Your task to perform on an android device: turn on location history Image 0: 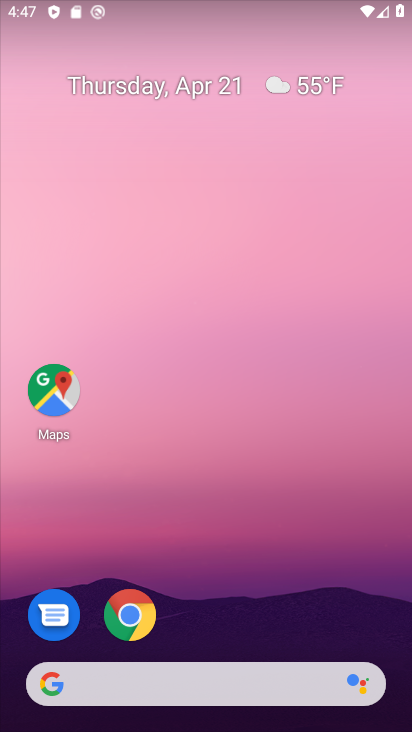
Step 0: drag from (275, 545) to (194, 27)
Your task to perform on an android device: turn on location history Image 1: 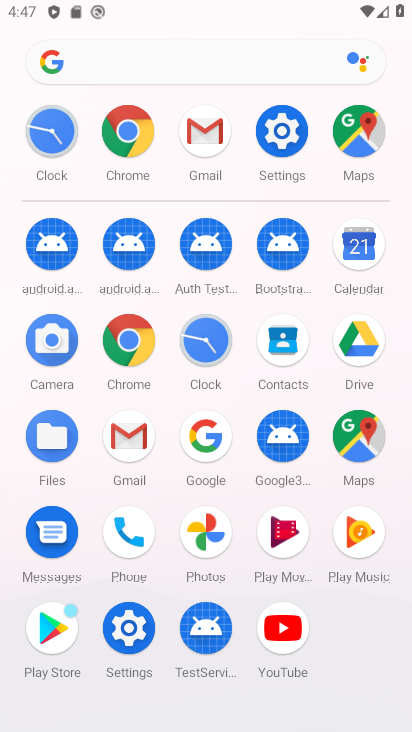
Step 1: drag from (6, 533) to (0, 258)
Your task to perform on an android device: turn on location history Image 2: 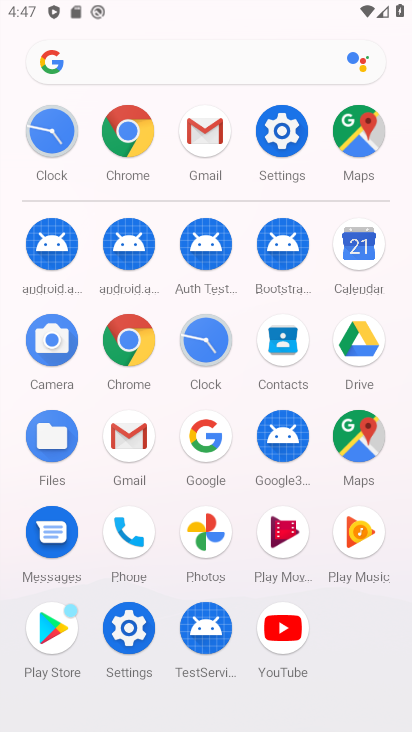
Step 2: click (124, 620)
Your task to perform on an android device: turn on location history Image 3: 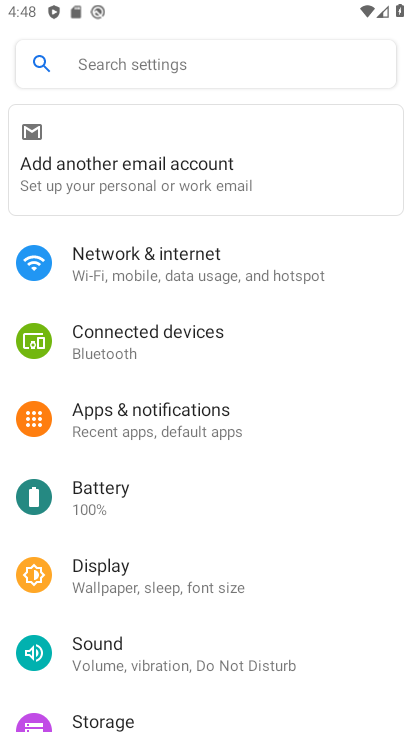
Step 3: drag from (280, 582) to (304, 190)
Your task to perform on an android device: turn on location history Image 4: 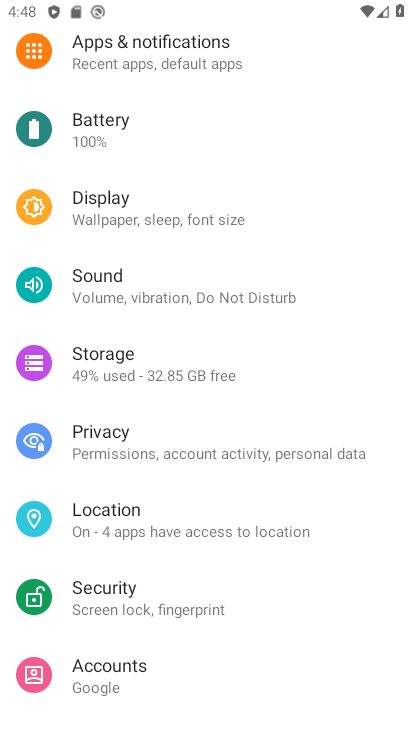
Step 4: drag from (238, 538) to (258, 249)
Your task to perform on an android device: turn on location history Image 5: 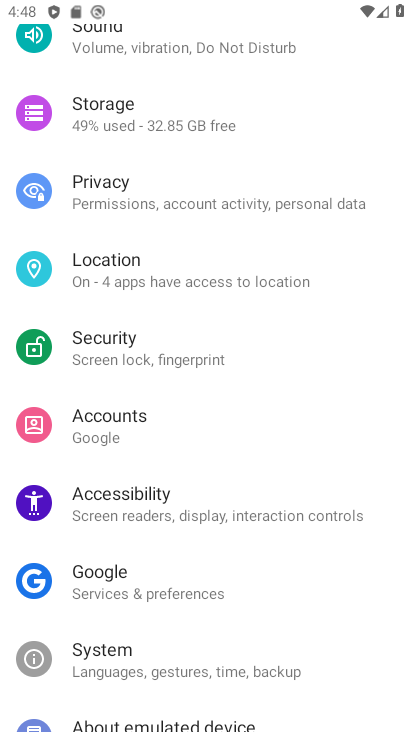
Step 5: click (129, 288)
Your task to perform on an android device: turn on location history Image 6: 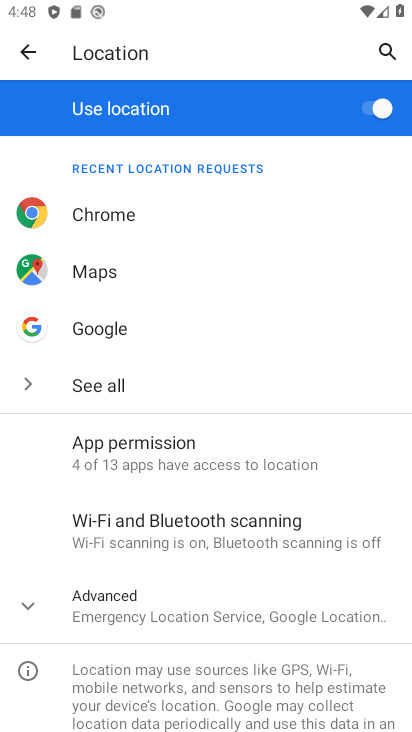
Step 6: click (34, 597)
Your task to perform on an android device: turn on location history Image 7: 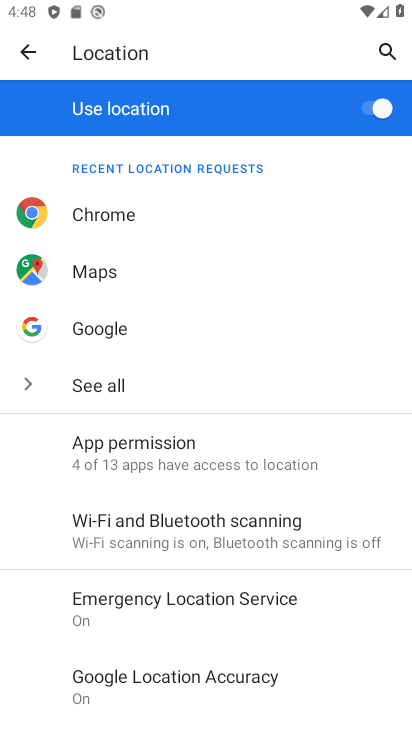
Step 7: drag from (239, 548) to (260, 144)
Your task to perform on an android device: turn on location history Image 8: 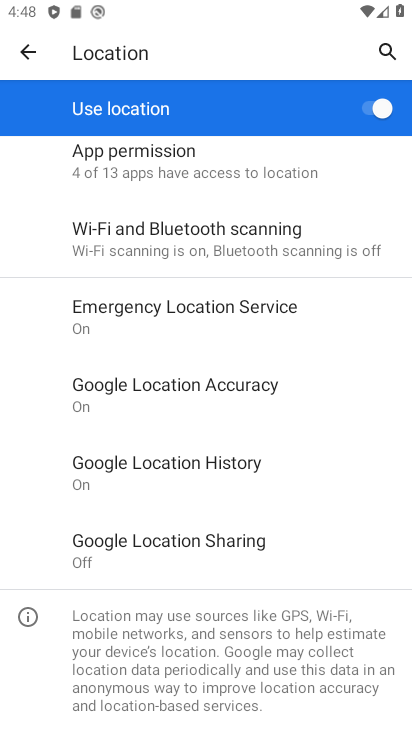
Step 8: click (218, 467)
Your task to perform on an android device: turn on location history Image 9: 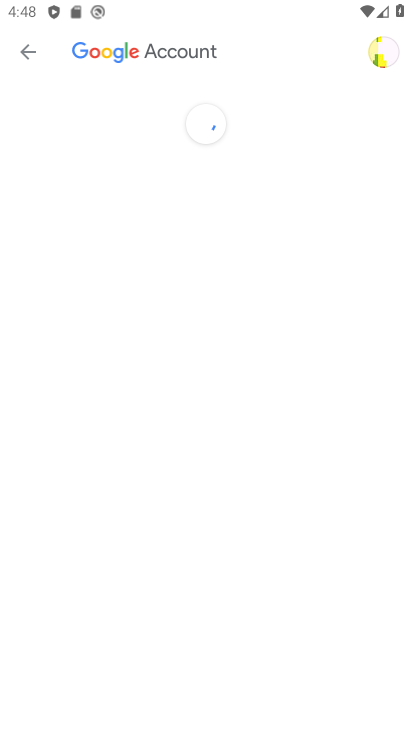
Step 9: task complete